Your task to perform on an android device: Find coffee shops on Maps Image 0: 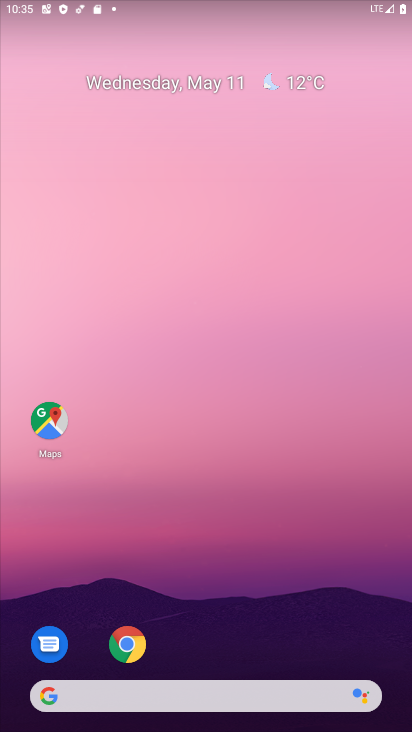
Step 0: click (46, 410)
Your task to perform on an android device: Find coffee shops on Maps Image 1: 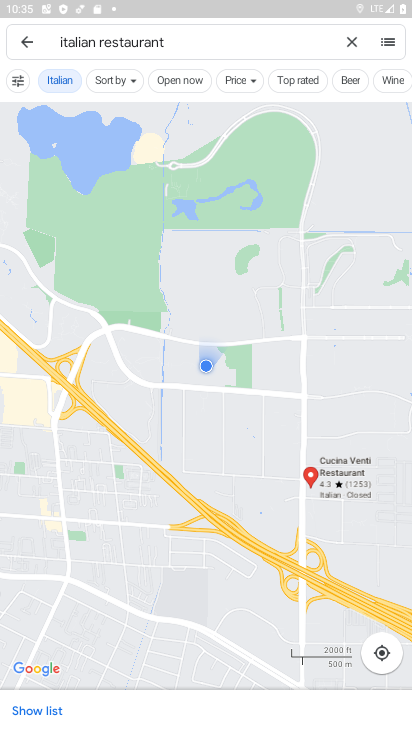
Step 1: click (350, 41)
Your task to perform on an android device: Find coffee shops on Maps Image 2: 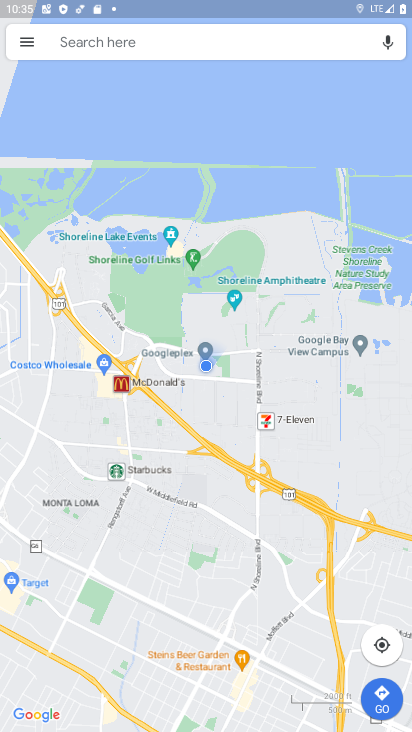
Step 2: click (252, 41)
Your task to perform on an android device: Find coffee shops on Maps Image 3: 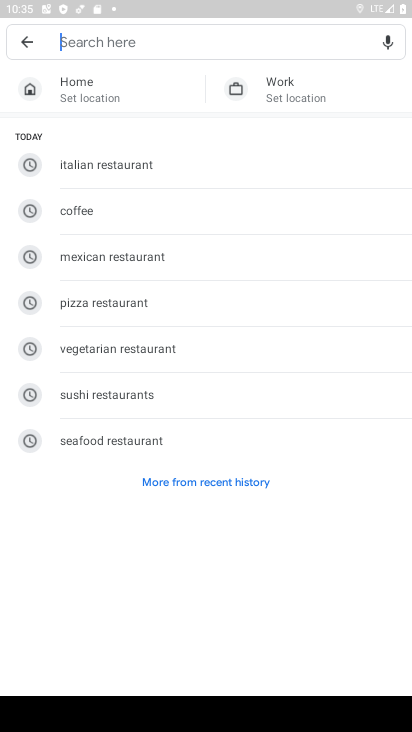
Step 3: type "coffee"
Your task to perform on an android device: Find coffee shops on Maps Image 4: 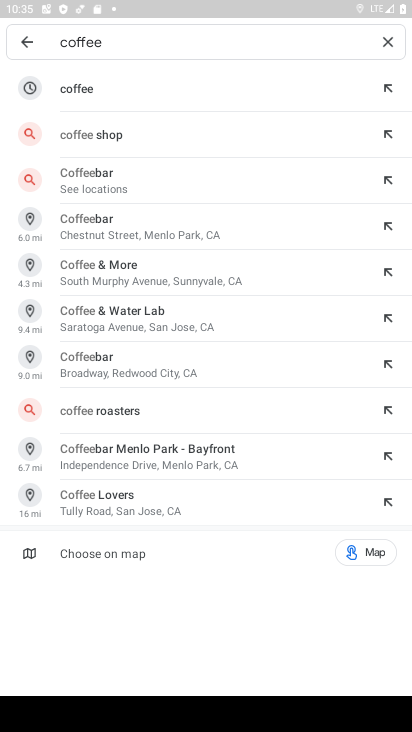
Step 4: click (226, 89)
Your task to perform on an android device: Find coffee shops on Maps Image 5: 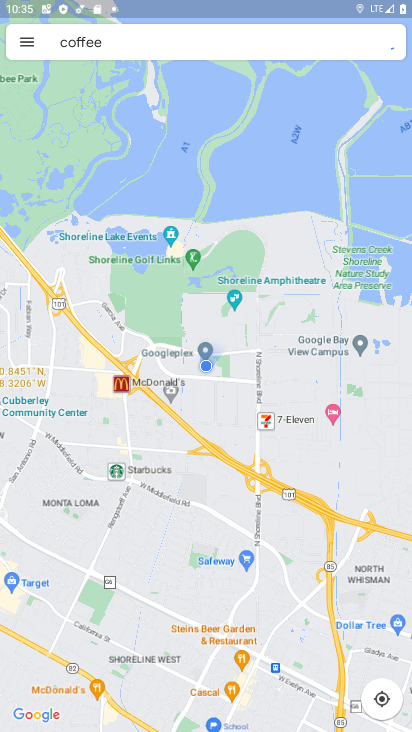
Step 5: task complete